Your task to perform on an android device: Open Android settings Image 0: 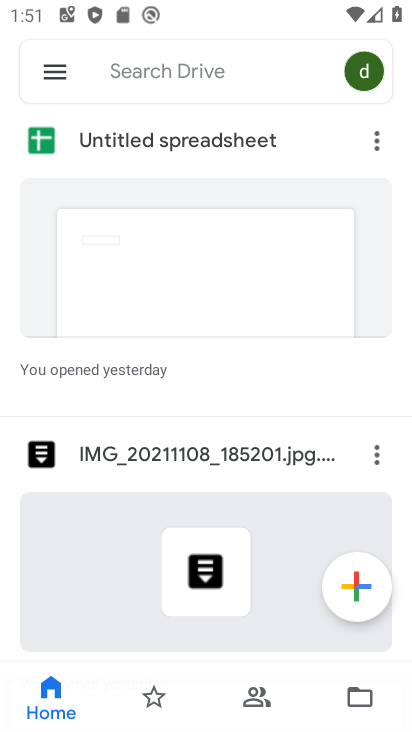
Step 0: press home button
Your task to perform on an android device: Open Android settings Image 1: 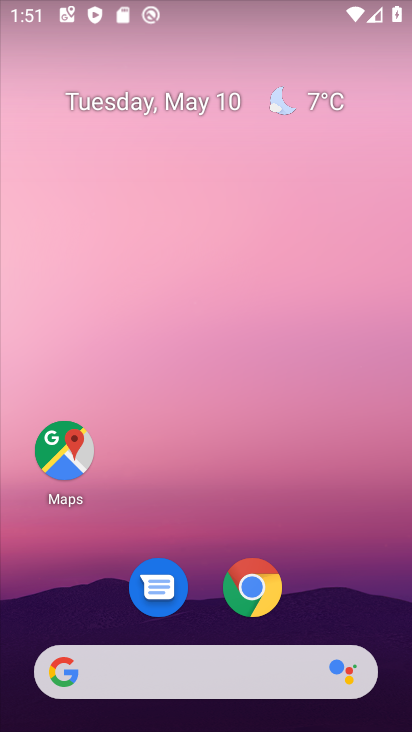
Step 1: drag from (350, 534) to (295, 79)
Your task to perform on an android device: Open Android settings Image 2: 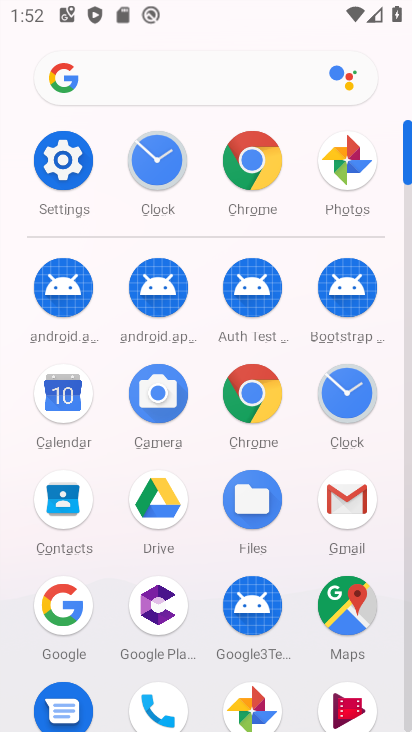
Step 2: drag from (301, 458) to (268, 204)
Your task to perform on an android device: Open Android settings Image 3: 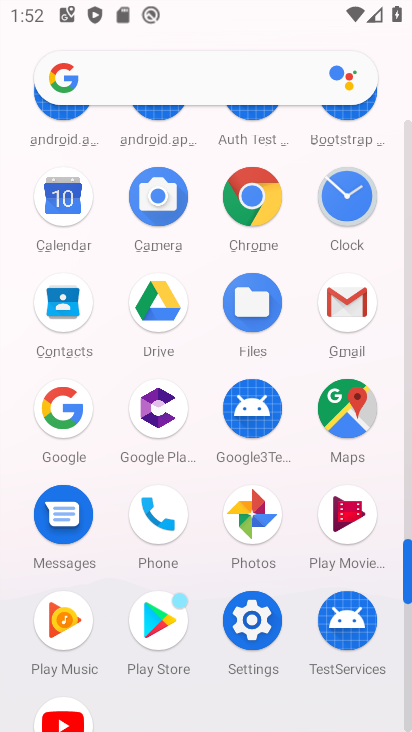
Step 3: click (258, 631)
Your task to perform on an android device: Open Android settings Image 4: 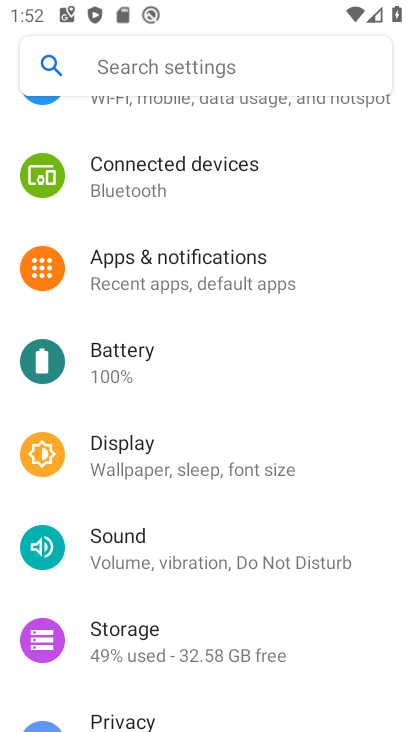
Step 4: task complete